Your task to perform on an android device: Clear all items from cart on bestbuy. Add "logitech g pro" to the cart on bestbuy, then select checkout. Image 0: 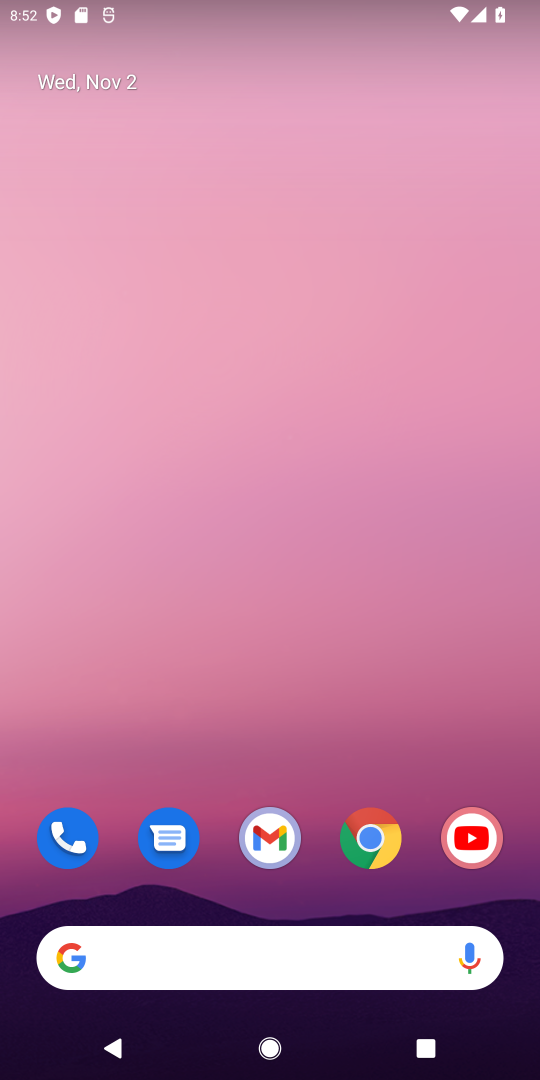
Step 0: click (384, 854)
Your task to perform on an android device: Clear all items from cart on bestbuy. Add "logitech g pro" to the cart on bestbuy, then select checkout. Image 1: 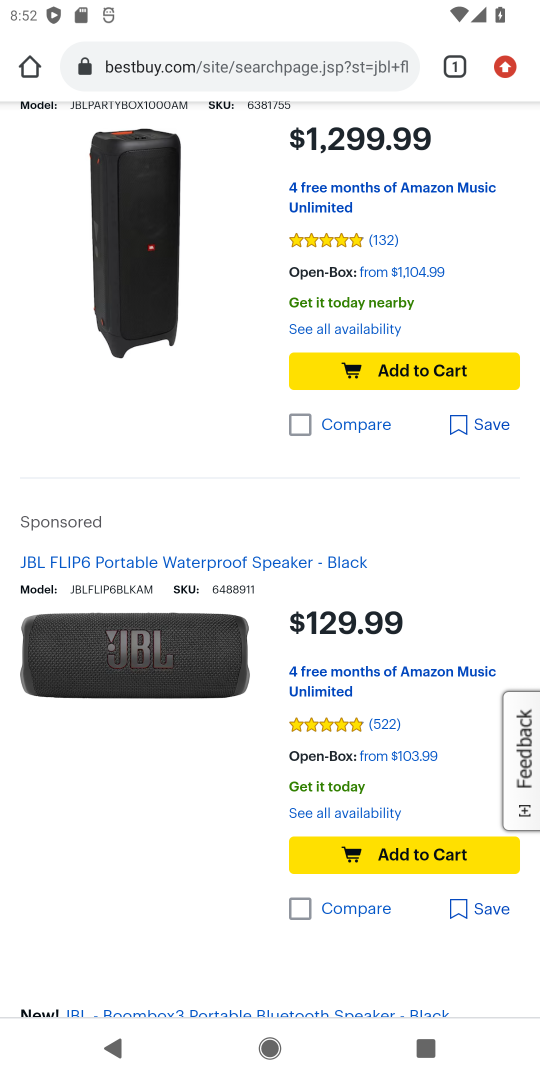
Step 1: click (255, 70)
Your task to perform on an android device: Clear all items from cart on bestbuy. Add "logitech g pro" to the cart on bestbuy, then select checkout. Image 2: 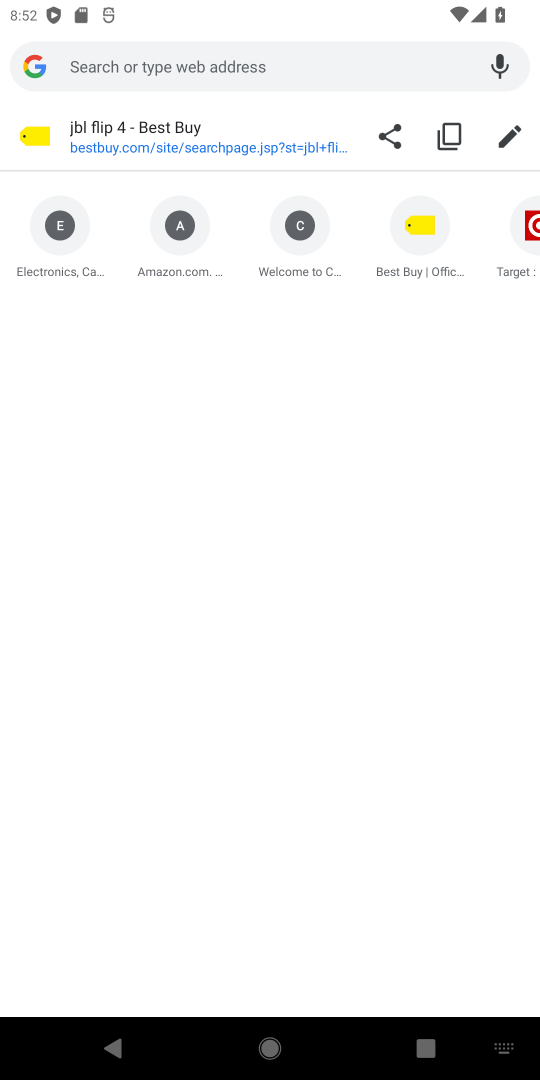
Step 2: type "bestbuy"
Your task to perform on an android device: Clear all items from cart on bestbuy. Add "logitech g pro" to the cart on bestbuy, then select checkout. Image 3: 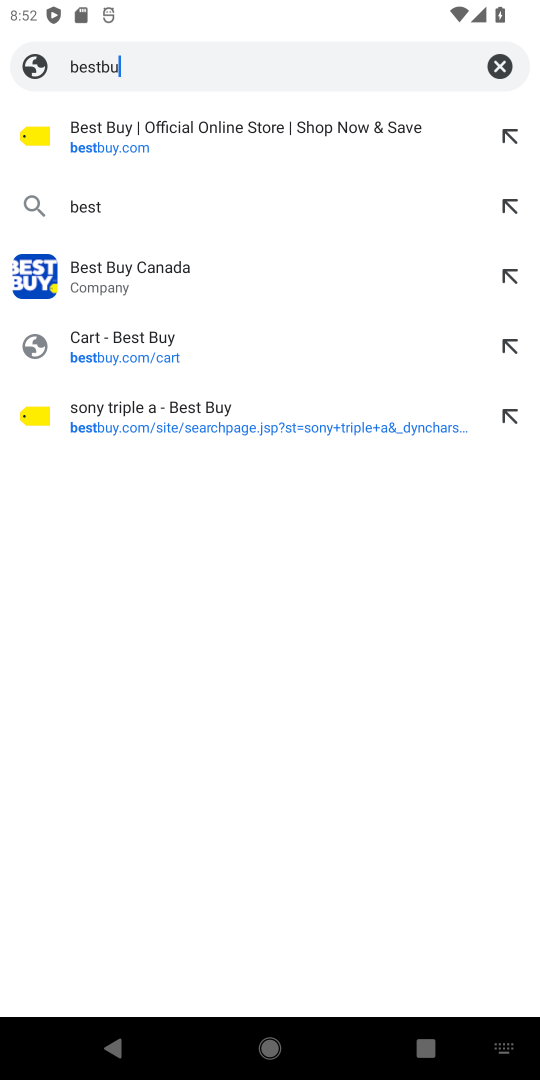
Step 3: type ""
Your task to perform on an android device: Clear all items from cart on bestbuy. Add "logitech g pro" to the cart on bestbuy, then select checkout. Image 4: 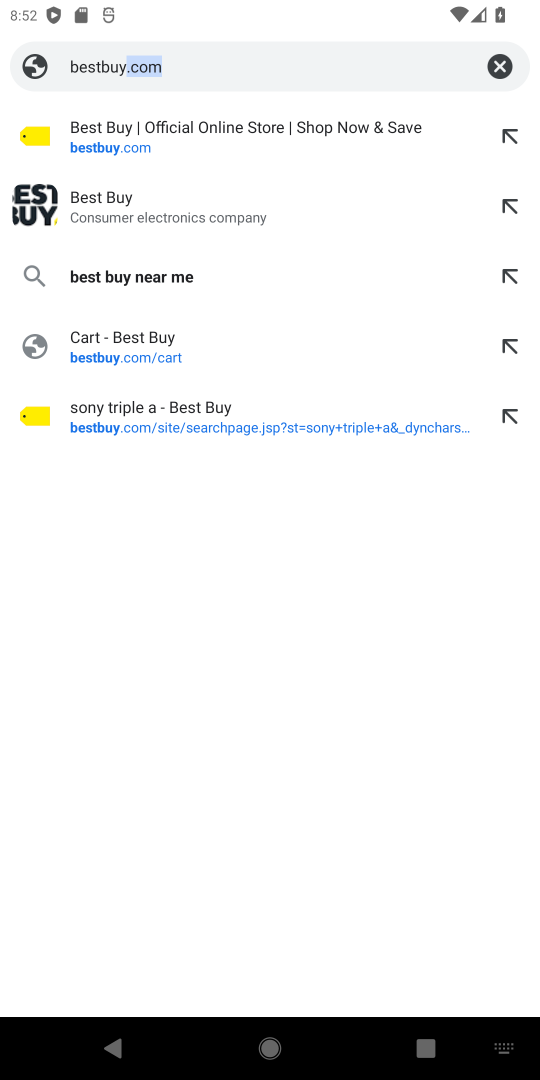
Step 4: press enter
Your task to perform on an android device: Clear all items from cart on bestbuy. Add "logitech g pro" to the cart on bestbuy, then select checkout. Image 5: 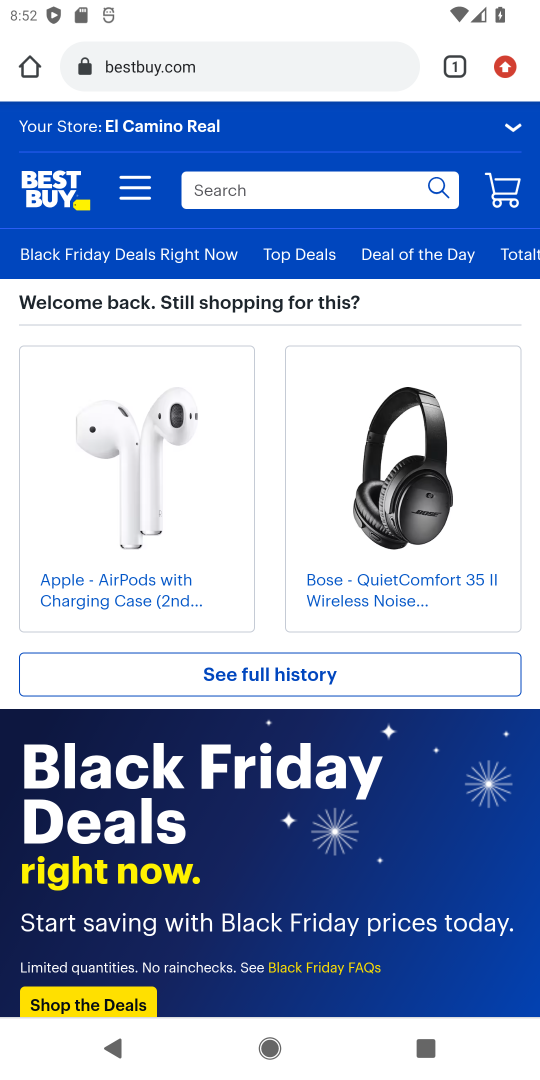
Step 5: click (262, 188)
Your task to perform on an android device: Clear all items from cart on bestbuy. Add "logitech g pro" to the cart on bestbuy, then select checkout. Image 6: 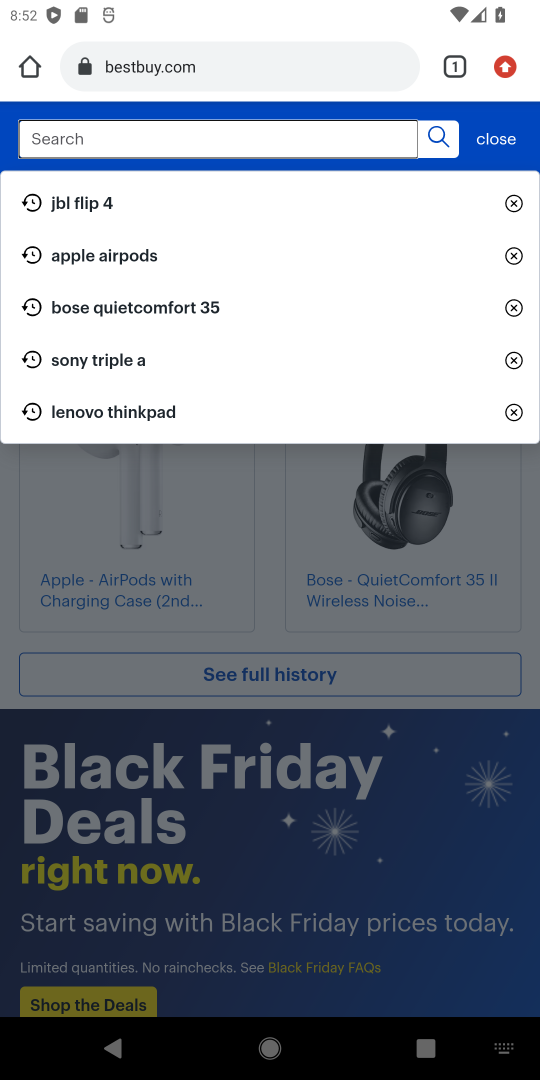
Step 6: type "logitech g pro"
Your task to perform on an android device: Clear all items from cart on bestbuy. Add "logitech g pro" to the cart on bestbuy, then select checkout. Image 7: 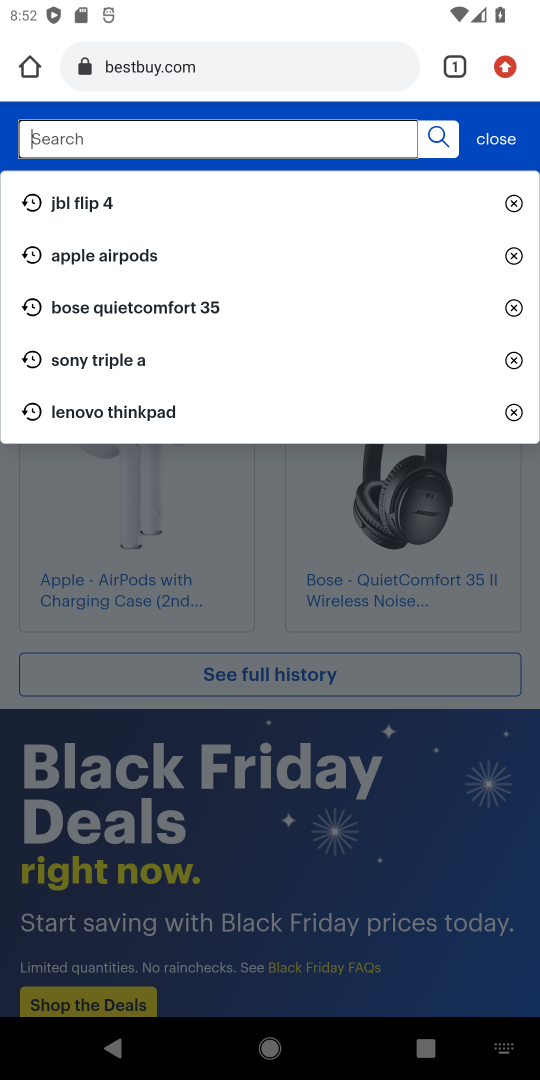
Step 7: type ""
Your task to perform on an android device: Clear all items from cart on bestbuy. Add "logitech g pro" to the cart on bestbuy, then select checkout. Image 8: 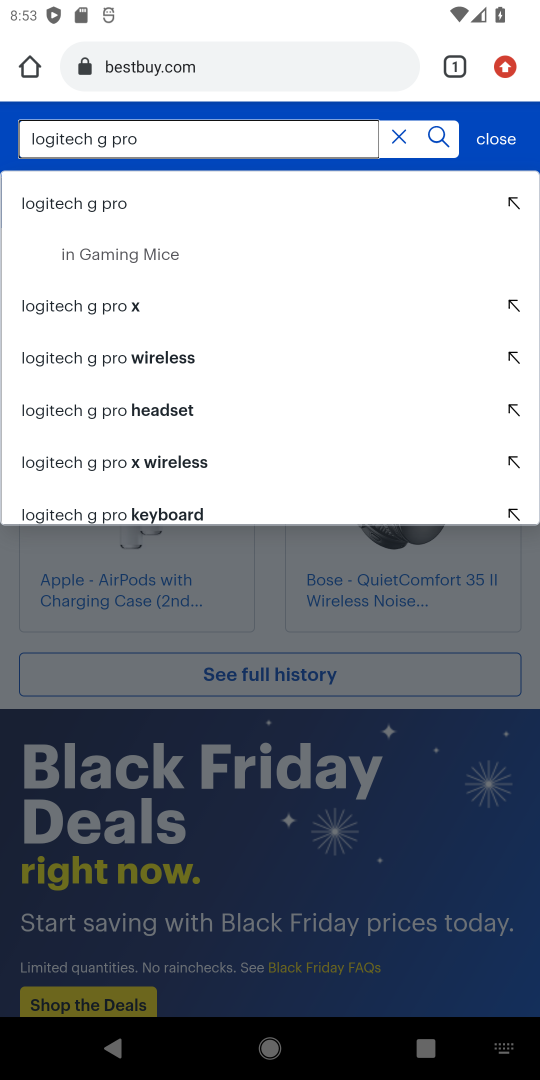
Step 8: press enter
Your task to perform on an android device: Clear all items from cart on bestbuy. Add "logitech g pro" to the cart on bestbuy, then select checkout. Image 9: 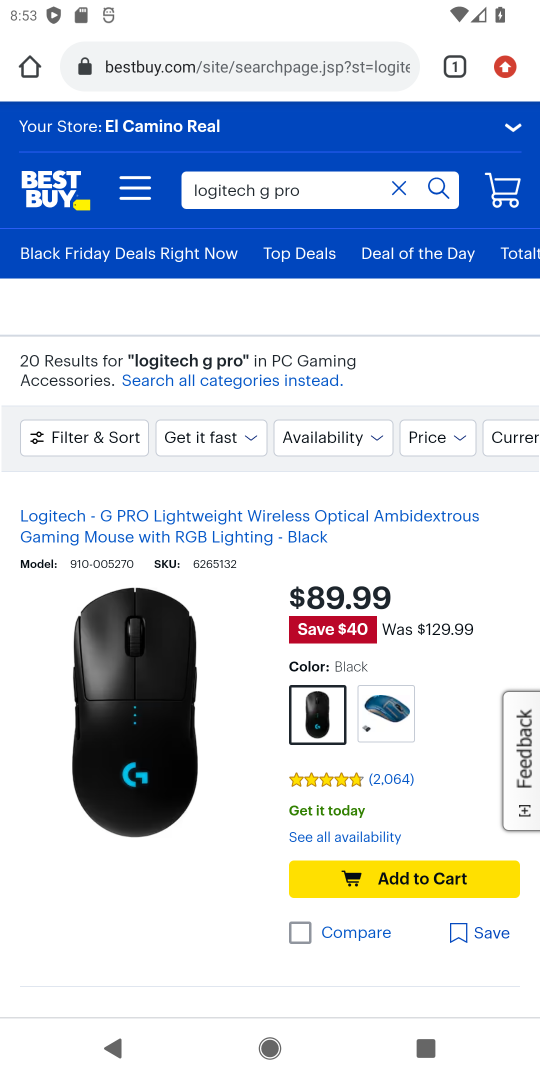
Step 9: click (455, 879)
Your task to perform on an android device: Clear all items from cart on bestbuy. Add "logitech g pro" to the cart on bestbuy, then select checkout. Image 10: 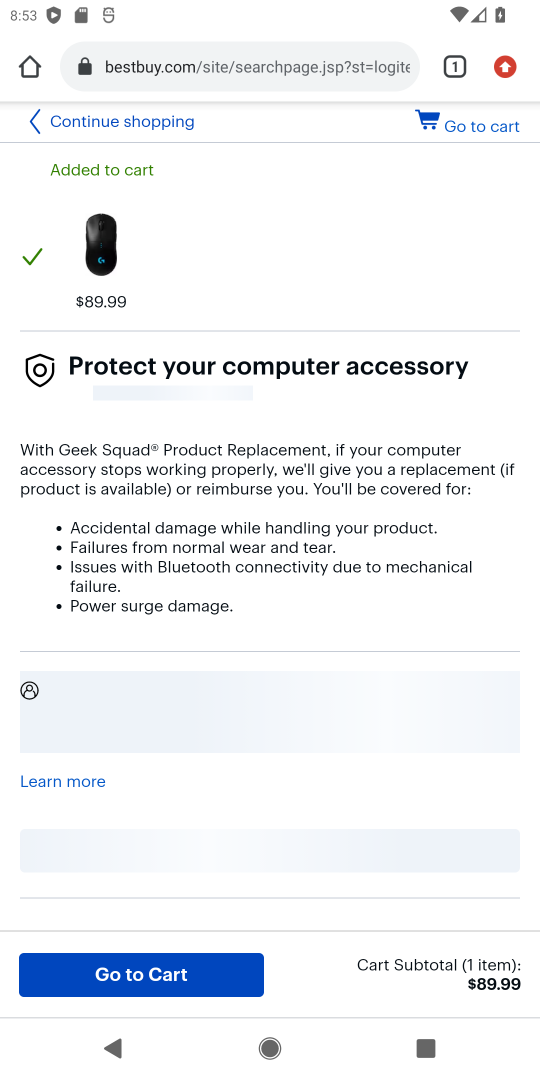
Step 10: click (201, 974)
Your task to perform on an android device: Clear all items from cart on bestbuy. Add "logitech g pro" to the cart on bestbuy, then select checkout. Image 11: 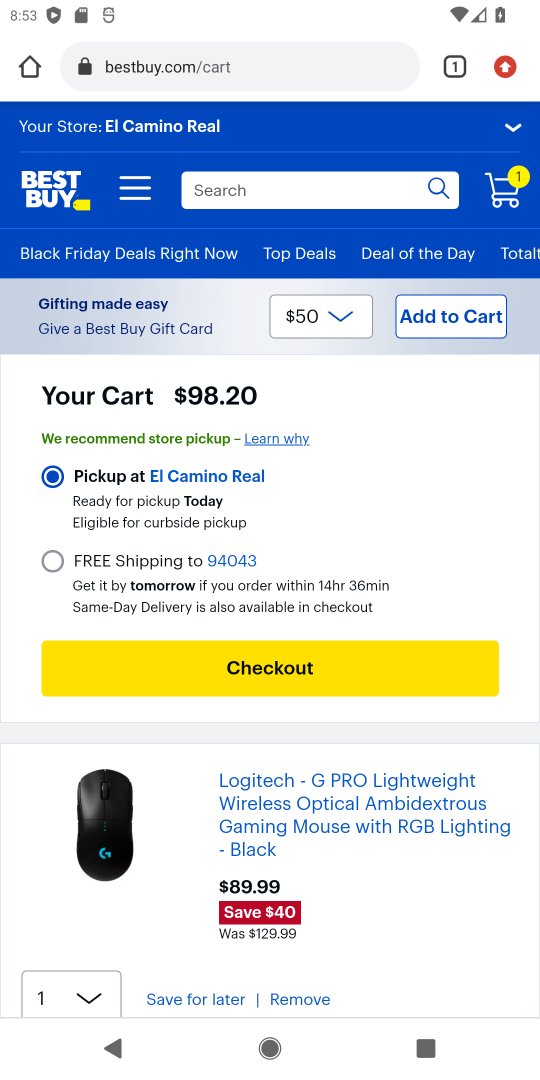
Step 11: click (335, 663)
Your task to perform on an android device: Clear all items from cart on bestbuy. Add "logitech g pro" to the cart on bestbuy, then select checkout. Image 12: 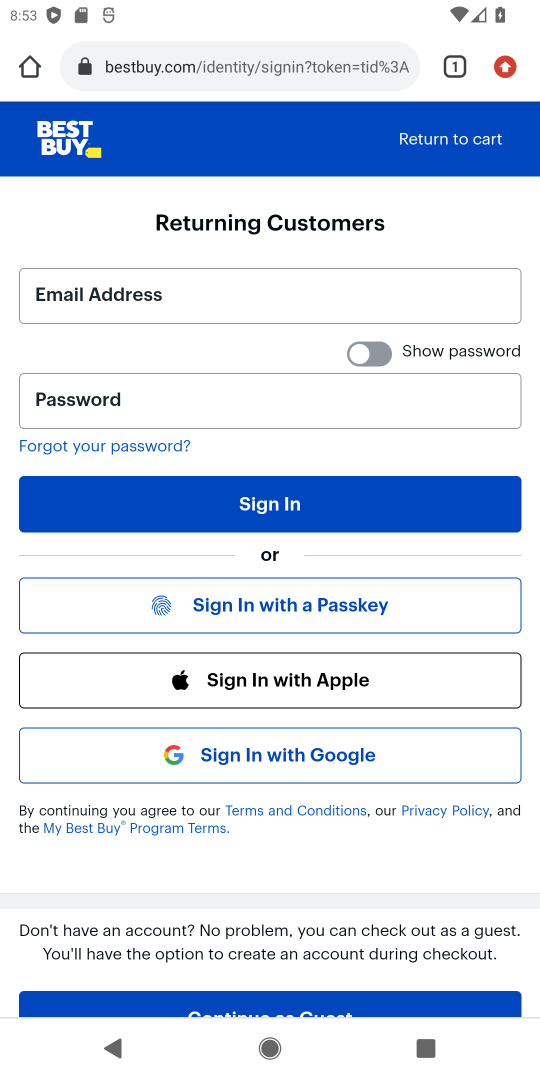
Step 12: task complete